Your task to perform on an android device: check battery use Image 0: 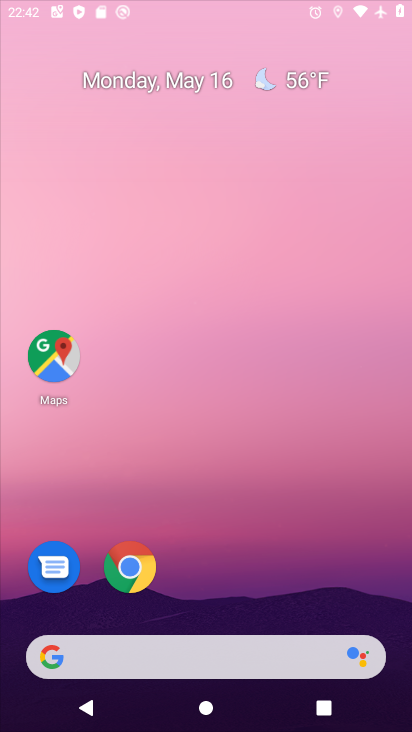
Step 0: drag from (258, 628) to (292, 274)
Your task to perform on an android device: check battery use Image 1: 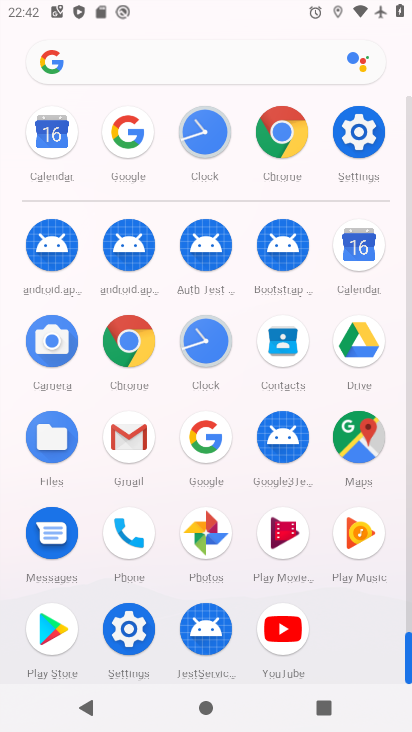
Step 1: click (346, 125)
Your task to perform on an android device: check battery use Image 2: 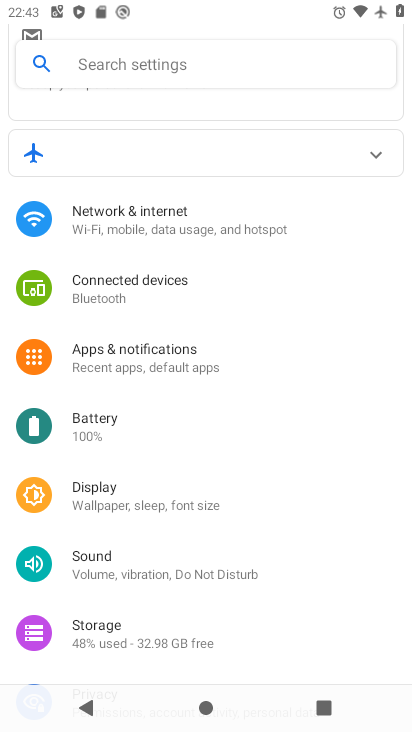
Step 2: click (95, 432)
Your task to perform on an android device: check battery use Image 3: 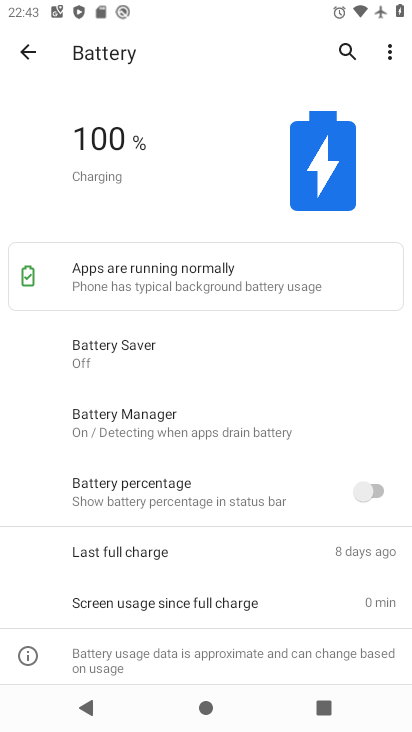
Step 3: task complete